Your task to perform on an android device: Open privacy settings Image 0: 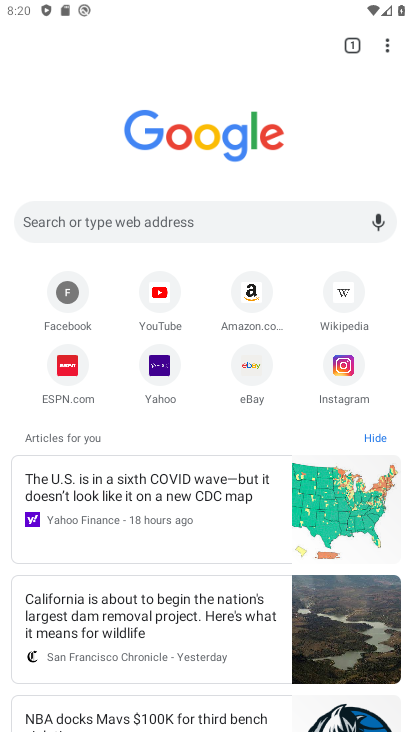
Step 0: press home button
Your task to perform on an android device: Open privacy settings Image 1: 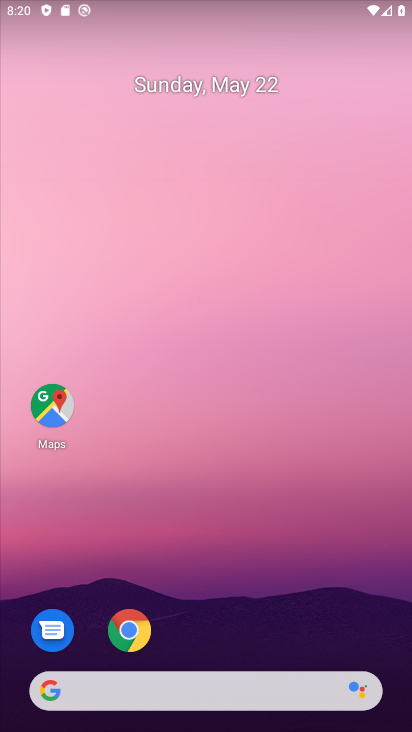
Step 1: drag from (220, 460) to (350, 0)
Your task to perform on an android device: Open privacy settings Image 2: 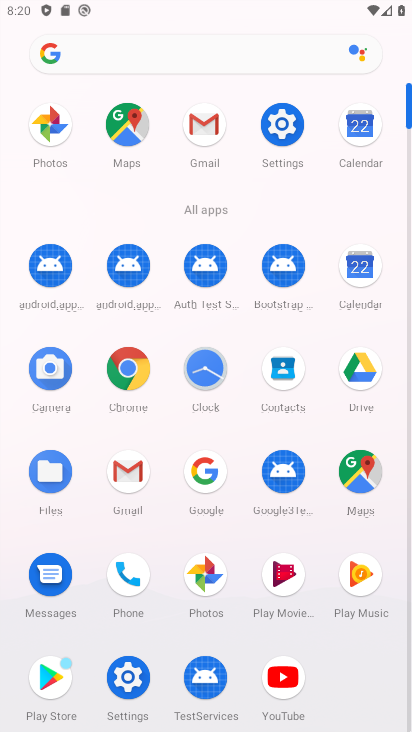
Step 2: click (293, 136)
Your task to perform on an android device: Open privacy settings Image 3: 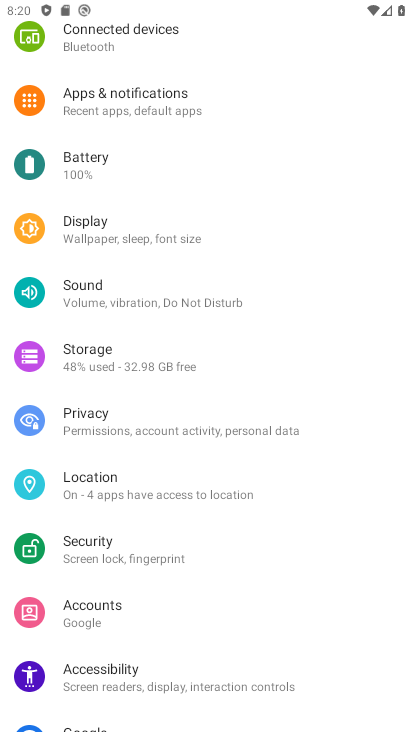
Step 3: click (114, 410)
Your task to perform on an android device: Open privacy settings Image 4: 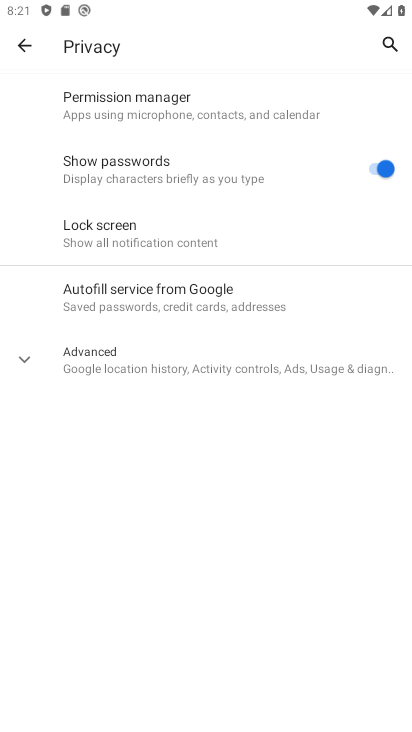
Step 4: task complete